Your task to perform on an android device: see creations saved in the google photos Image 0: 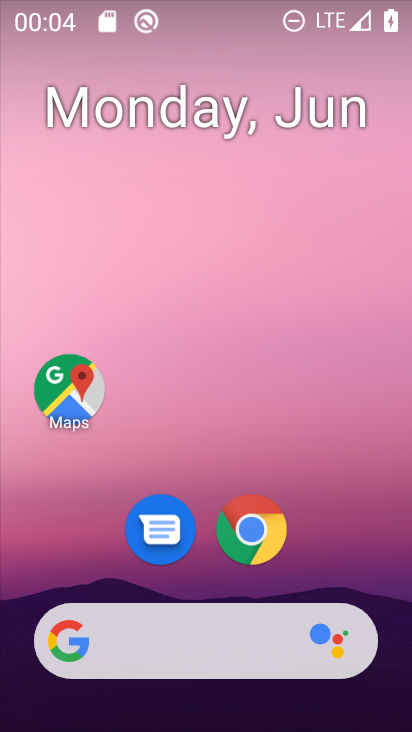
Step 0: drag from (396, 635) to (304, 173)
Your task to perform on an android device: see creations saved in the google photos Image 1: 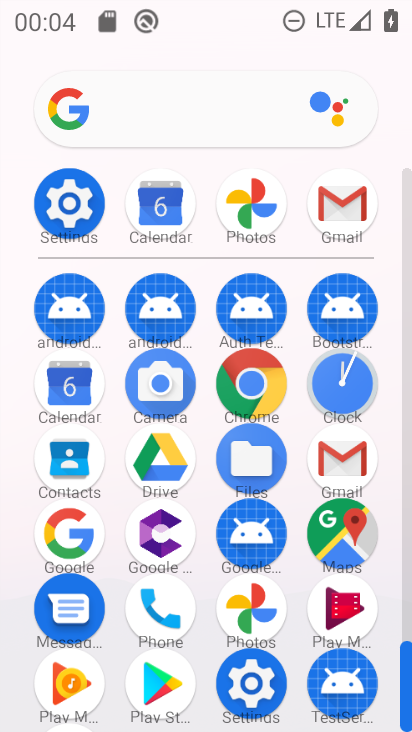
Step 1: click (252, 608)
Your task to perform on an android device: see creations saved in the google photos Image 2: 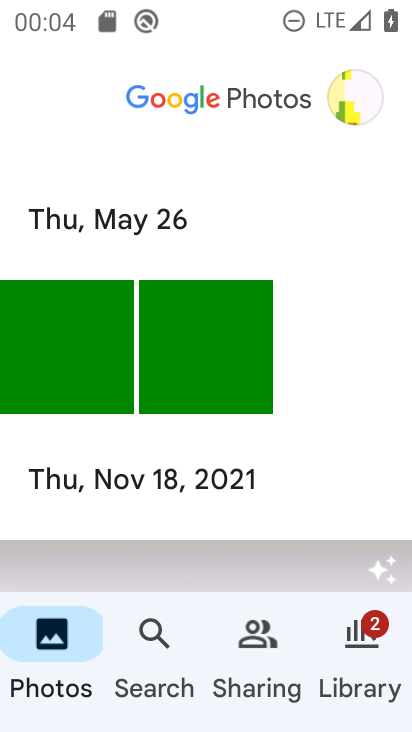
Step 2: task complete